Your task to perform on an android device: Open my contact list Image 0: 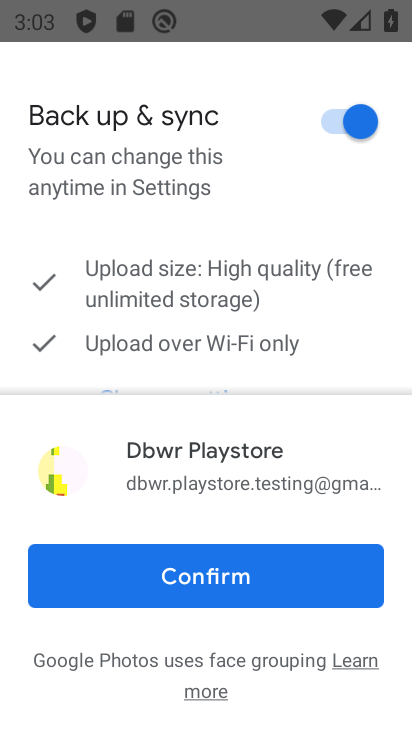
Step 0: press back button
Your task to perform on an android device: Open my contact list Image 1: 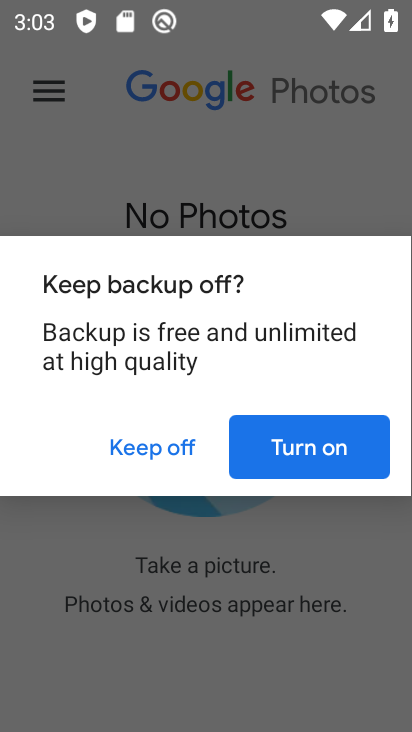
Step 1: click (160, 444)
Your task to perform on an android device: Open my contact list Image 2: 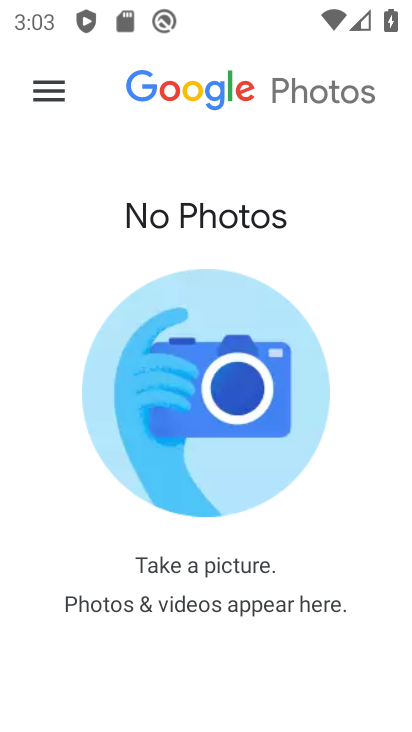
Step 2: drag from (285, 498) to (258, 245)
Your task to perform on an android device: Open my contact list Image 3: 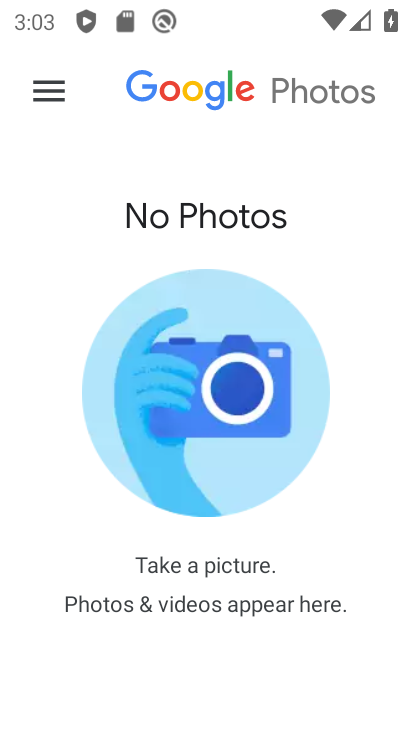
Step 3: press home button
Your task to perform on an android device: Open my contact list Image 4: 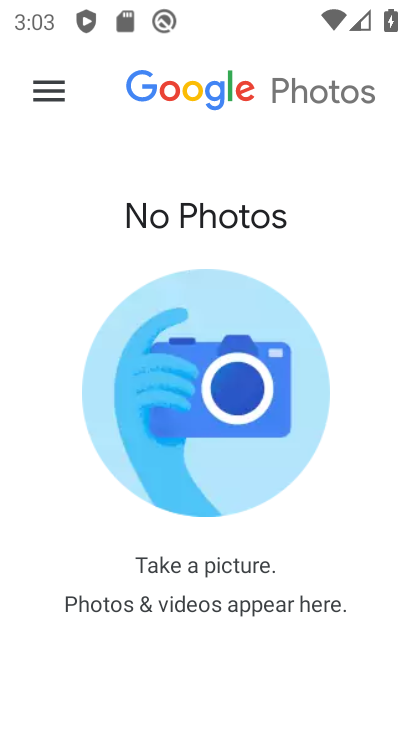
Step 4: press home button
Your task to perform on an android device: Open my contact list Image 5: 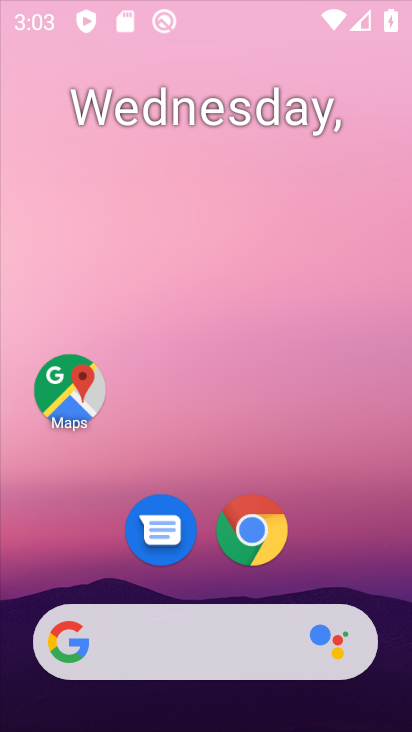
Step 5: press home button
Your task to perform on an android device: Open my contact list Image 6: 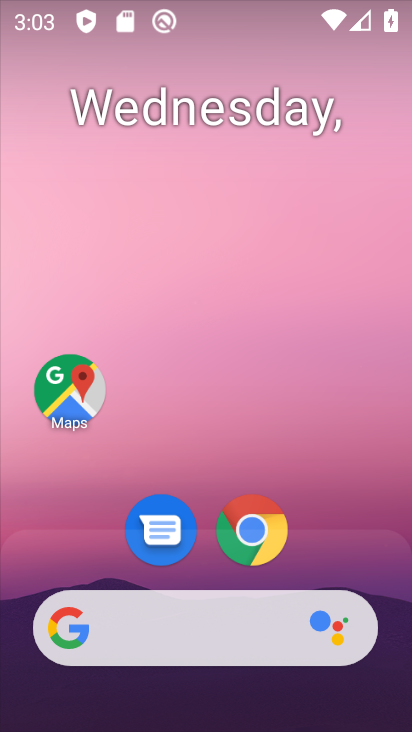
Step 6: press back button
Your task to perform on an android device: Open my contact list Image 7: 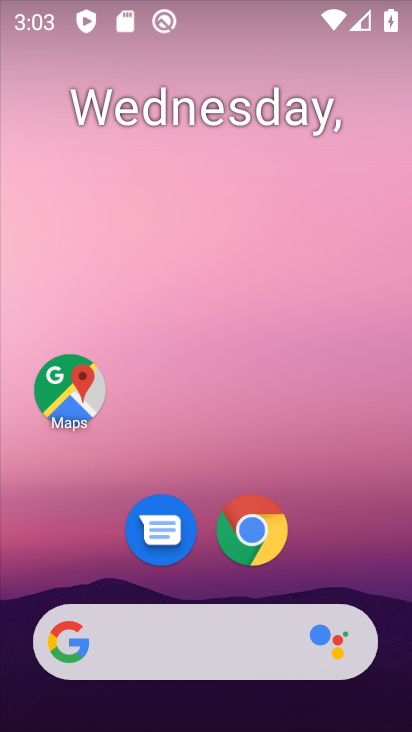
Step 7: drag from (243, 704) to (180, 196)
Your task to perform on an android device: Open my contact list Image 8: 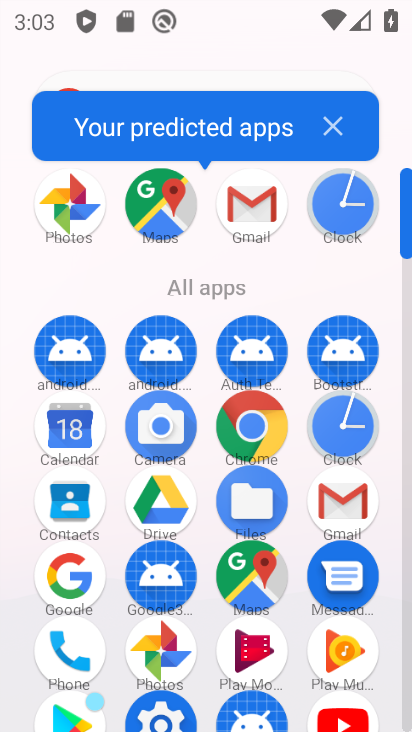
Step 8: click (79, 513)
Your task to perform on an android device: Open my contact list Image 9: 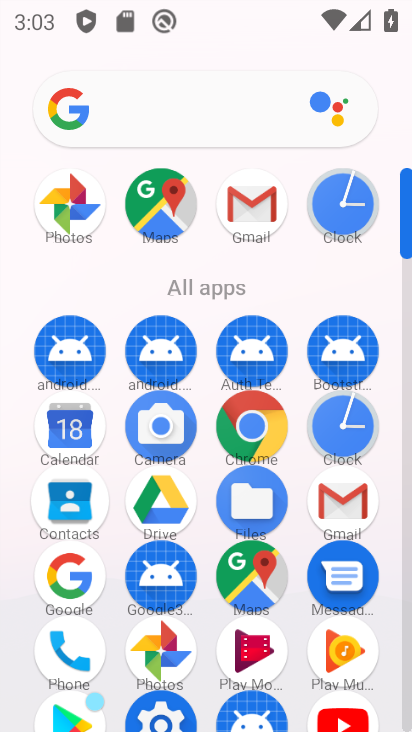
Step 9: click (80, 507)
Your task to perform on an android device: Open my contact list Image 10: 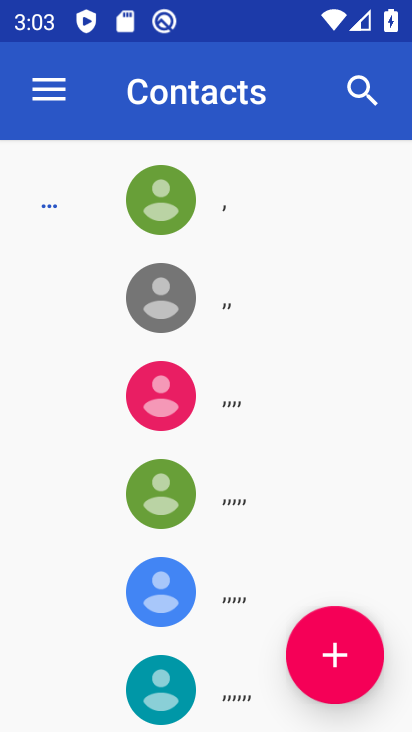
Step 10: task complete